Your task to perform on an android device: delete browsing data in the chrome app Image 0: 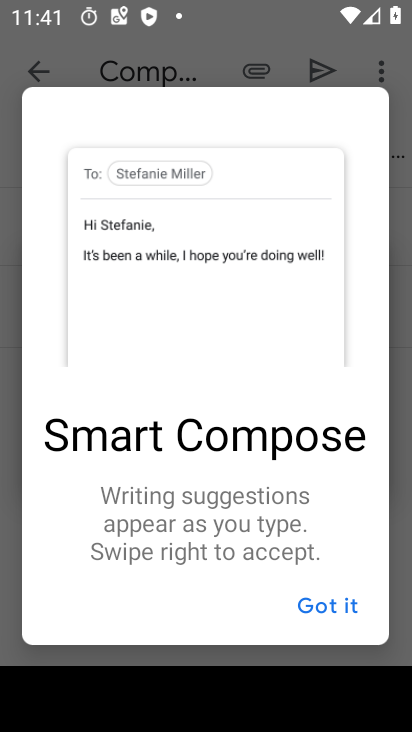
Step 0: press home button
Your task to perform on an android device: delete browsing data in the chrome app Image 1: 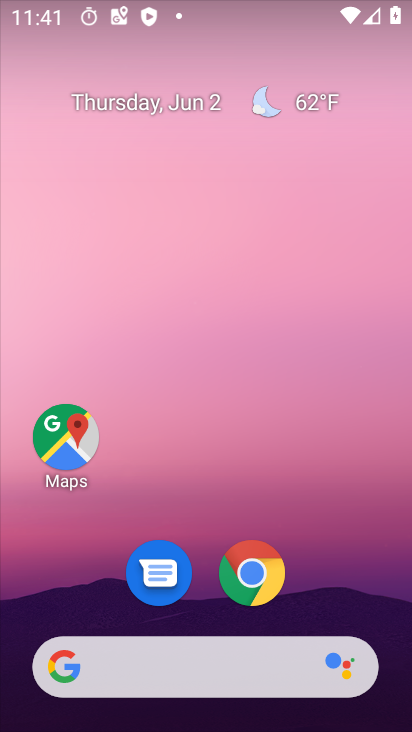
Step 1: drag from (163, 601) to (181, 196)
Your task to perform on an android device: delete browsing data in the chrome app Image 2: 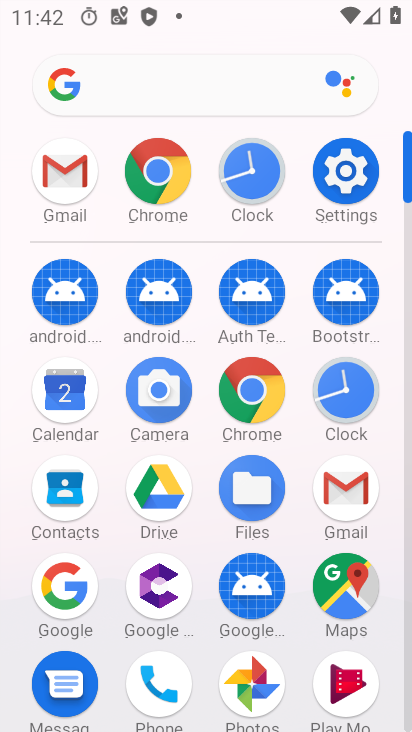
Step 2: click (264, 381)
Your task to perform on an android device: delete browsing data in the chrome app Image 3: 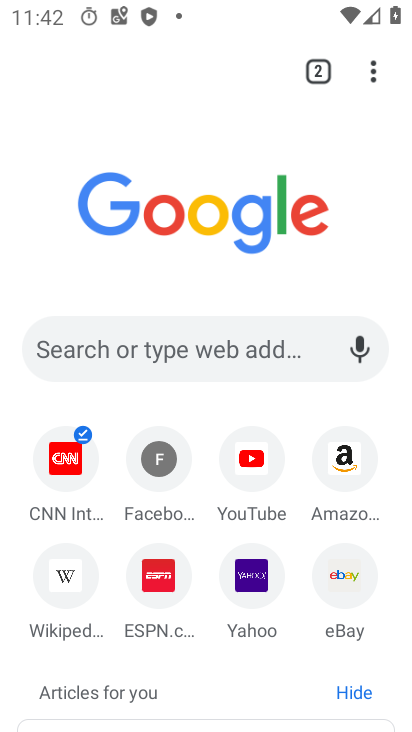
Step 3: drag from (370, 70) to (208, 396)
Your task to perform on an android device: delete browsing data in the chrome app Image 4: 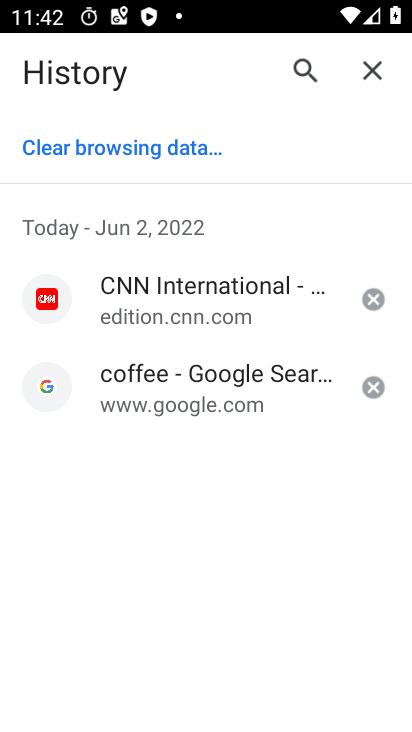
Step 4: click (106, 139)
Your task to perform on an android device: delete browsing data in the chrome app Image 5: 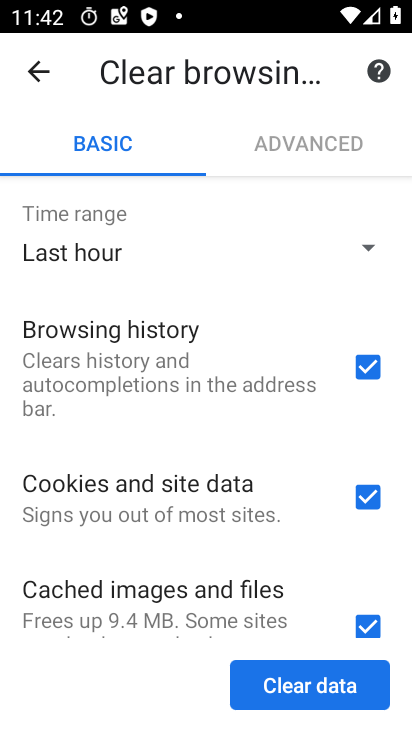
Step 5: click (367, 700)
Your task to perform on an android device: delete browsing data in the chrome app Image 6: 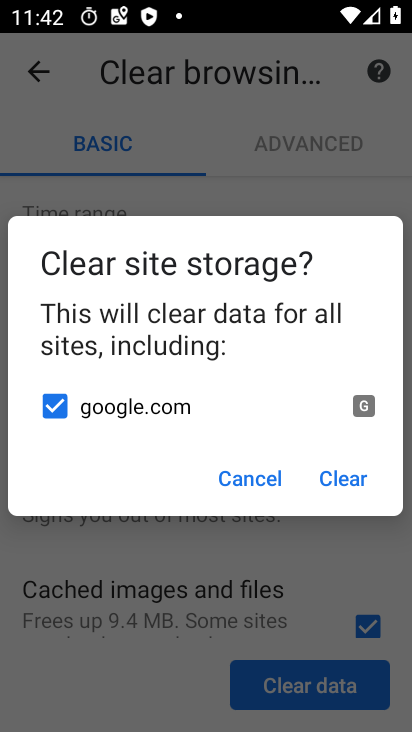
Step 6: click (348, 483)
Your task to perform on an android device: delete browsing data in the chrome app Image 7: 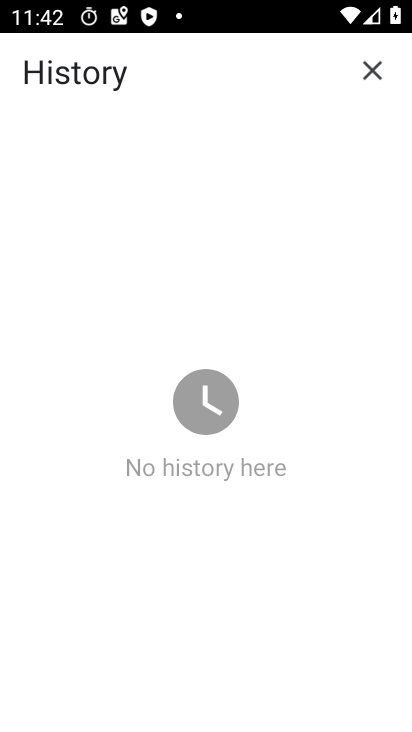
Step 7: task complete